Your task to perform on an android device: check data usage Image 0: 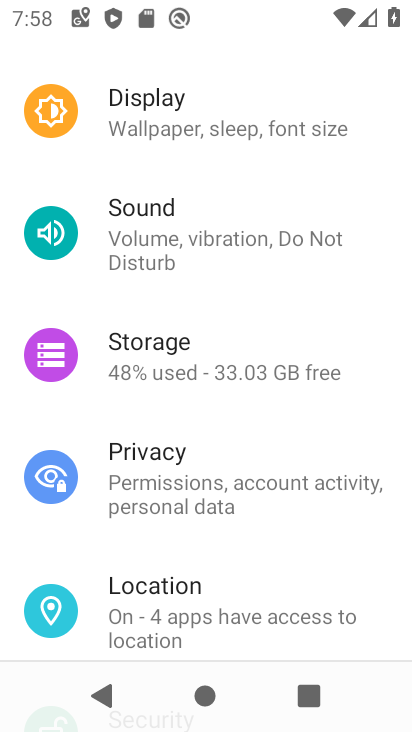
Step 0: press home button
Your task to perform on an android device: check data usage Image 1: 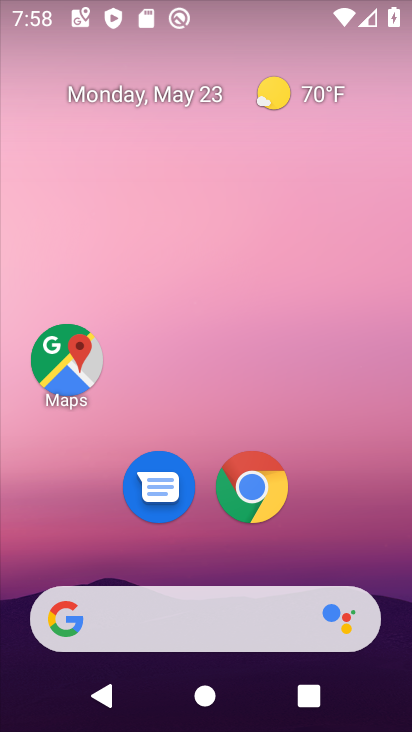
Step 1: drag from (153, 583) to (209, 117)
Your task to perform on an android device: check data usage Image 2: 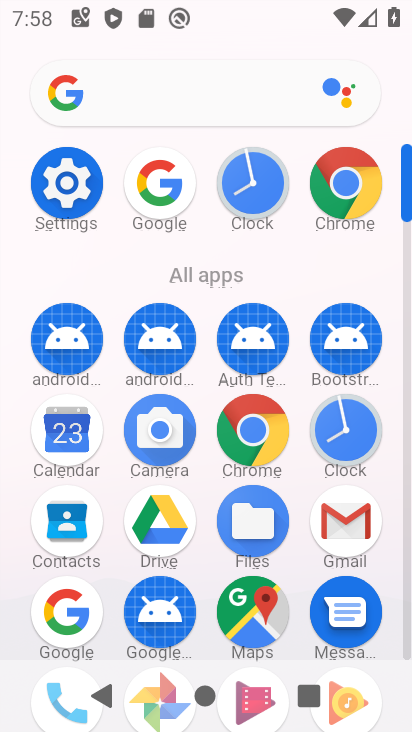
Step 2: click (71, 186)
Your task to perform on an android device: check data usage Image 3: 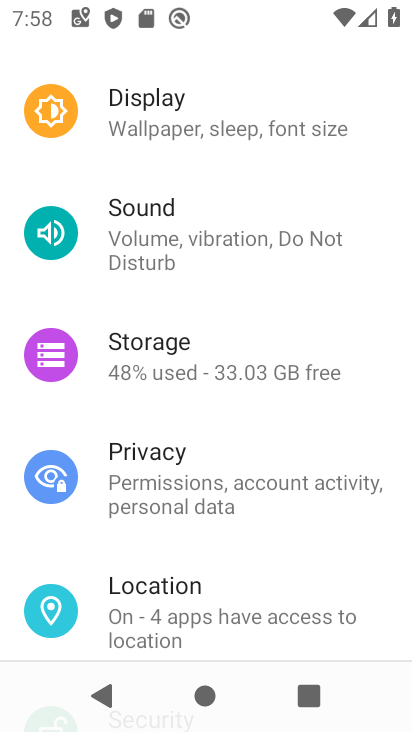
Step 3: drag from (215, 129) to (219, 433)
Your task to perform on an android device: check data usage Image 4: 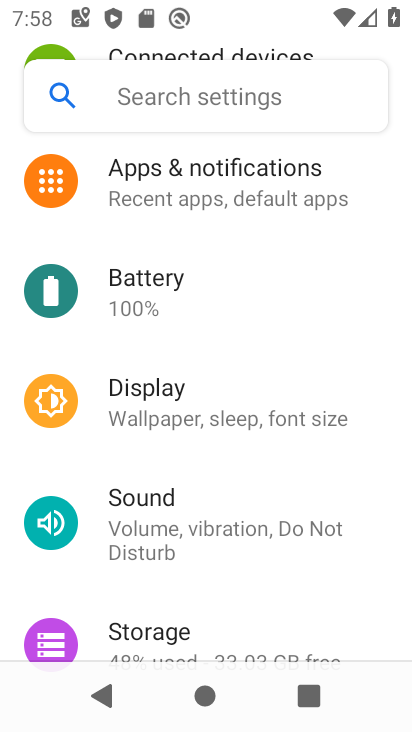
Step 4: drag from (260, 150) to (257, 416)
Your task to perform on an android device: check data usage Image 5: 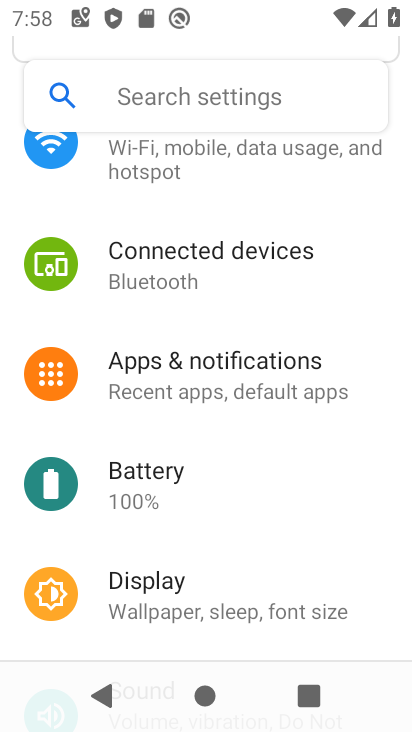
Step 5: click (238, 158)
Your task to perform on an android device: check data usage Image 6: 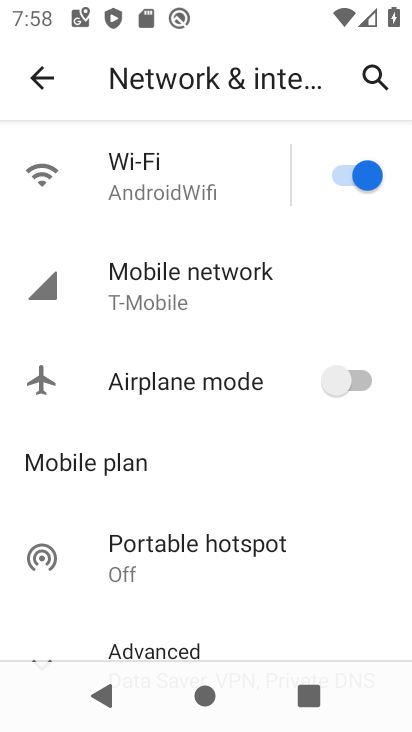
Step 6: click (197, 276)
Your task to perform on an android device: check data usage Image 7: 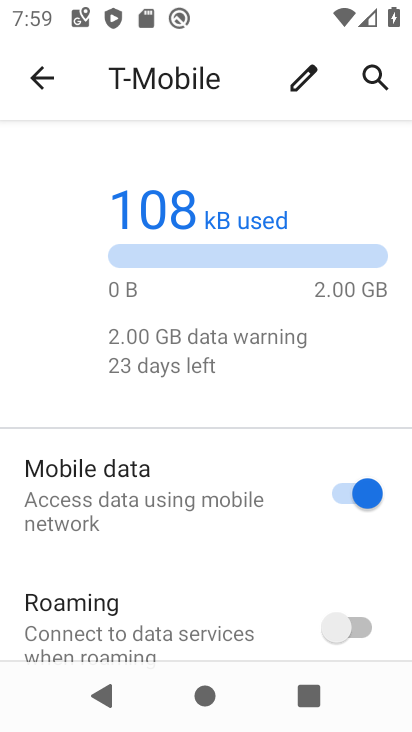
Step 7: task complete